Your task to perform on an android device: Add "macbook air" to the cart on newegg.com, then select checkout. Image 0: 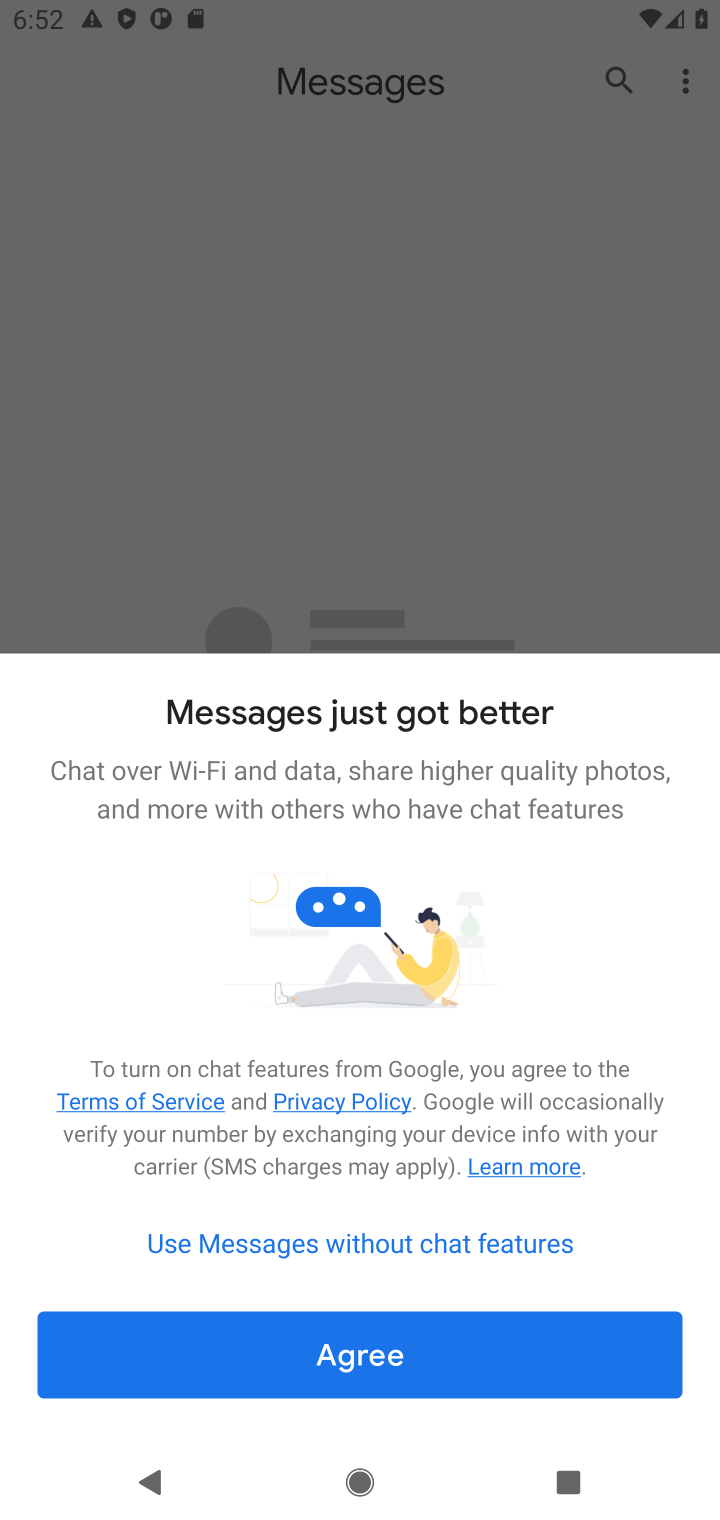
Step 0: press home button
Your task to perform on an android device: Add "macbook air" to the cart on newegg.com, then select checkout. Image 1: 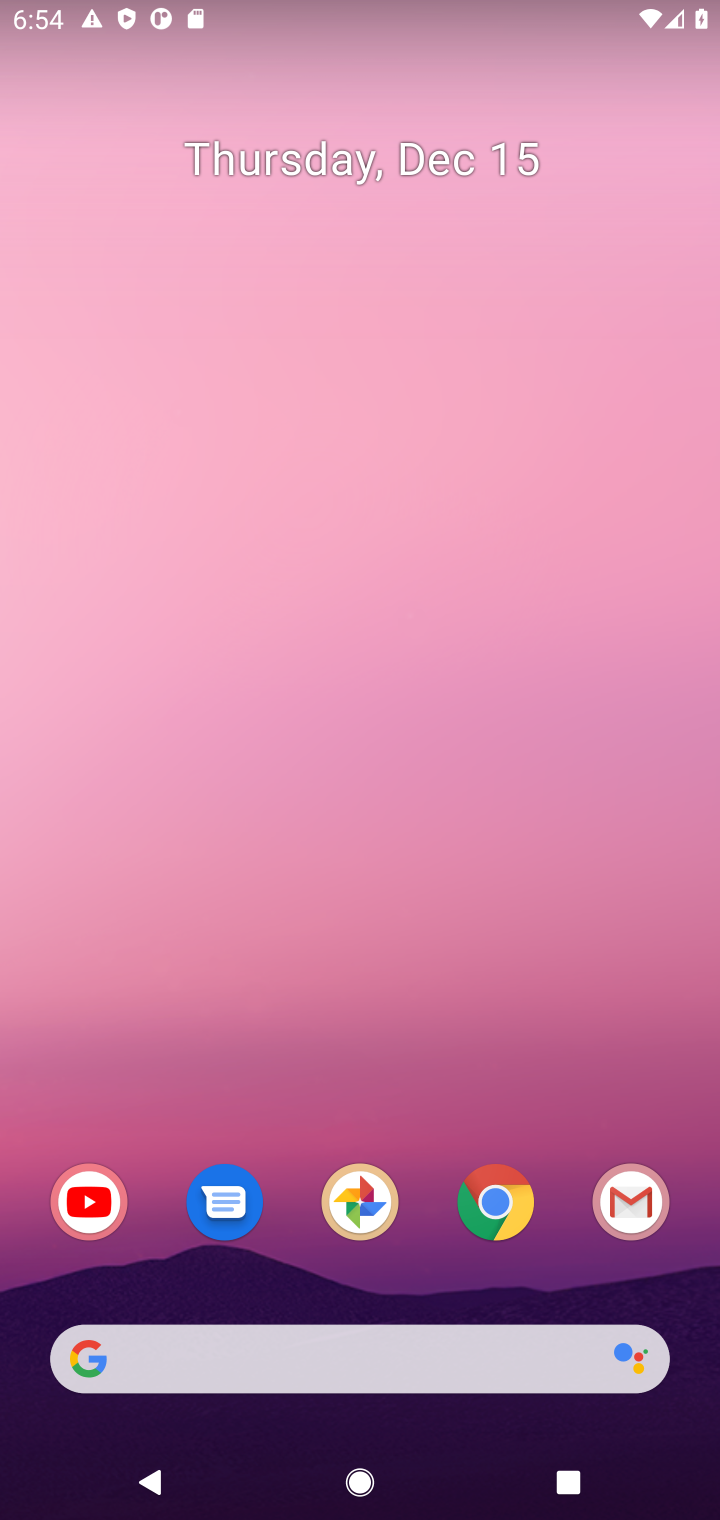
Step 1: click (488, 1205)
Your task to perform on an android device: Add "macbook air" to the cart on newegg.com, then select checkout. Image 2: 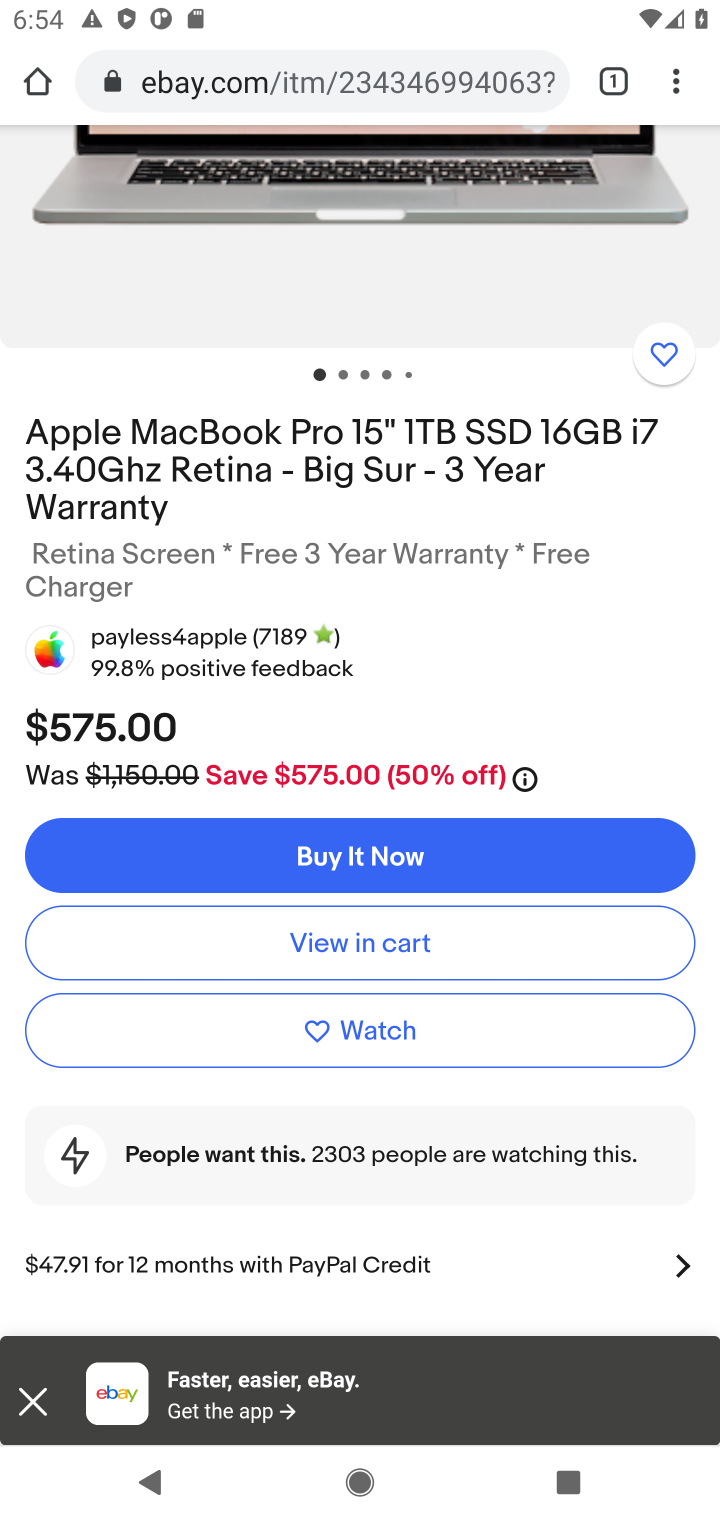
Step 2: click (286, 92)
Your task to perform on an android device: Add "macbook air" to the cart on newegg.com, then select checkout. Image 3: 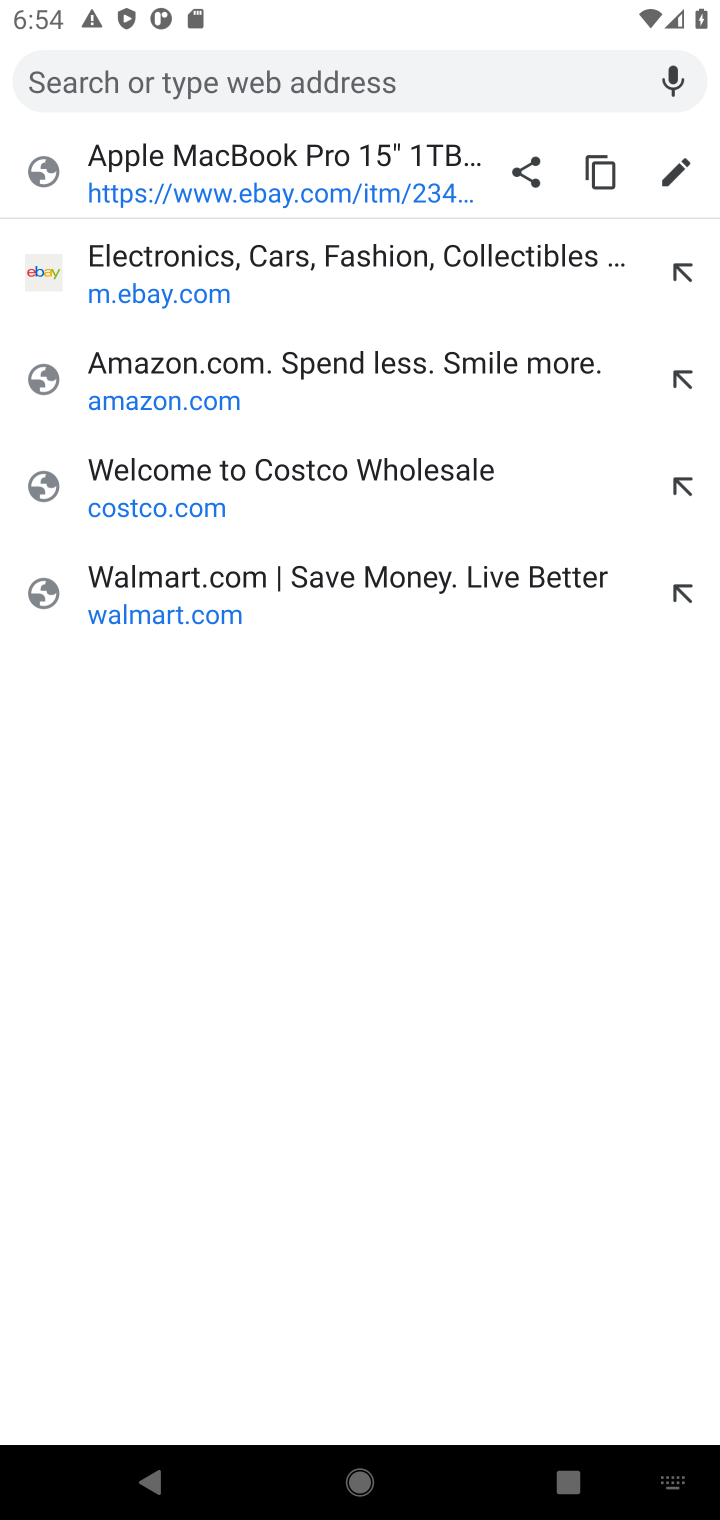
Step 3: type "newegg.com"
Your task to perform on an android device: Add "macbook air" to the cart on newegg.com, then select checkout. Image 4: 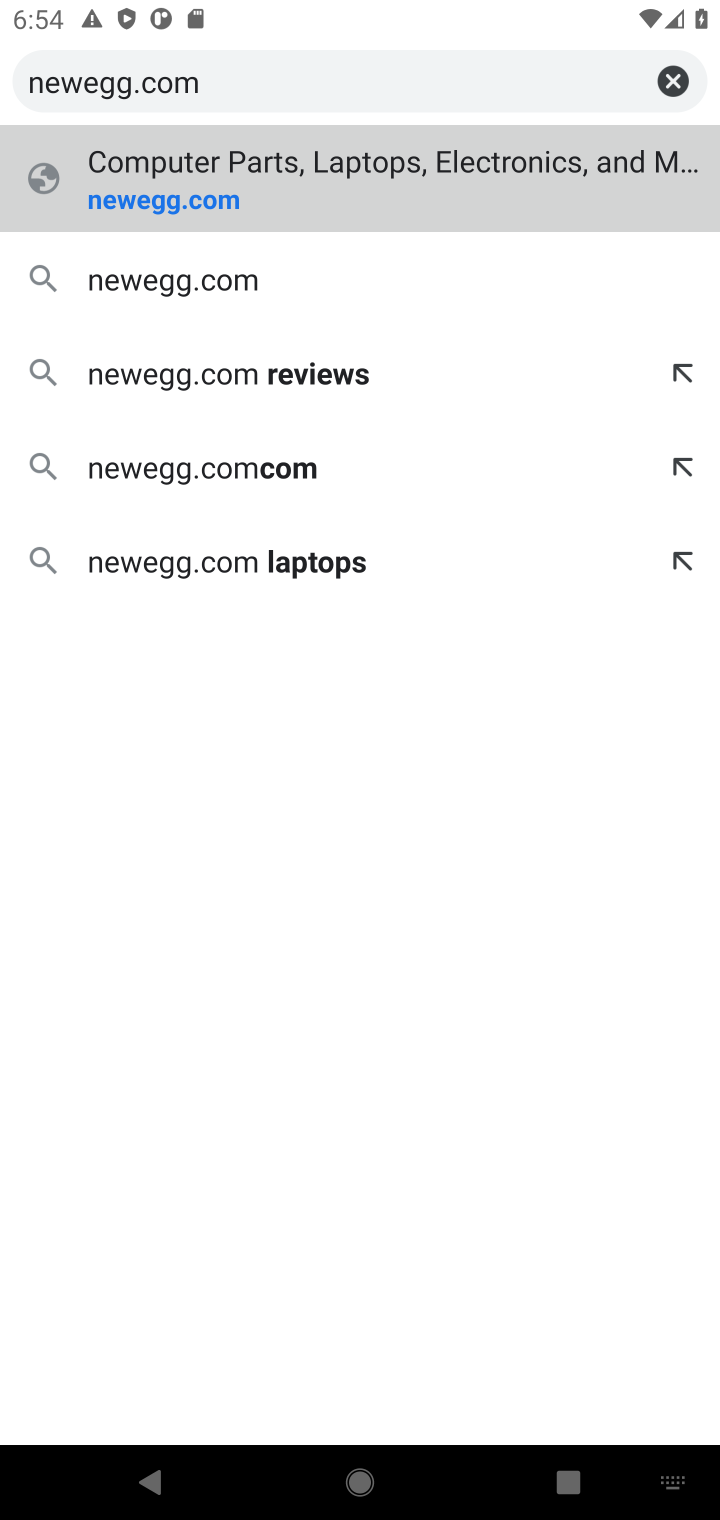
Step 4: click (178, 218)
Your task to perform on an android device: Add "macbook air" to the cart on newegg.com, then select checkout. Image 5: 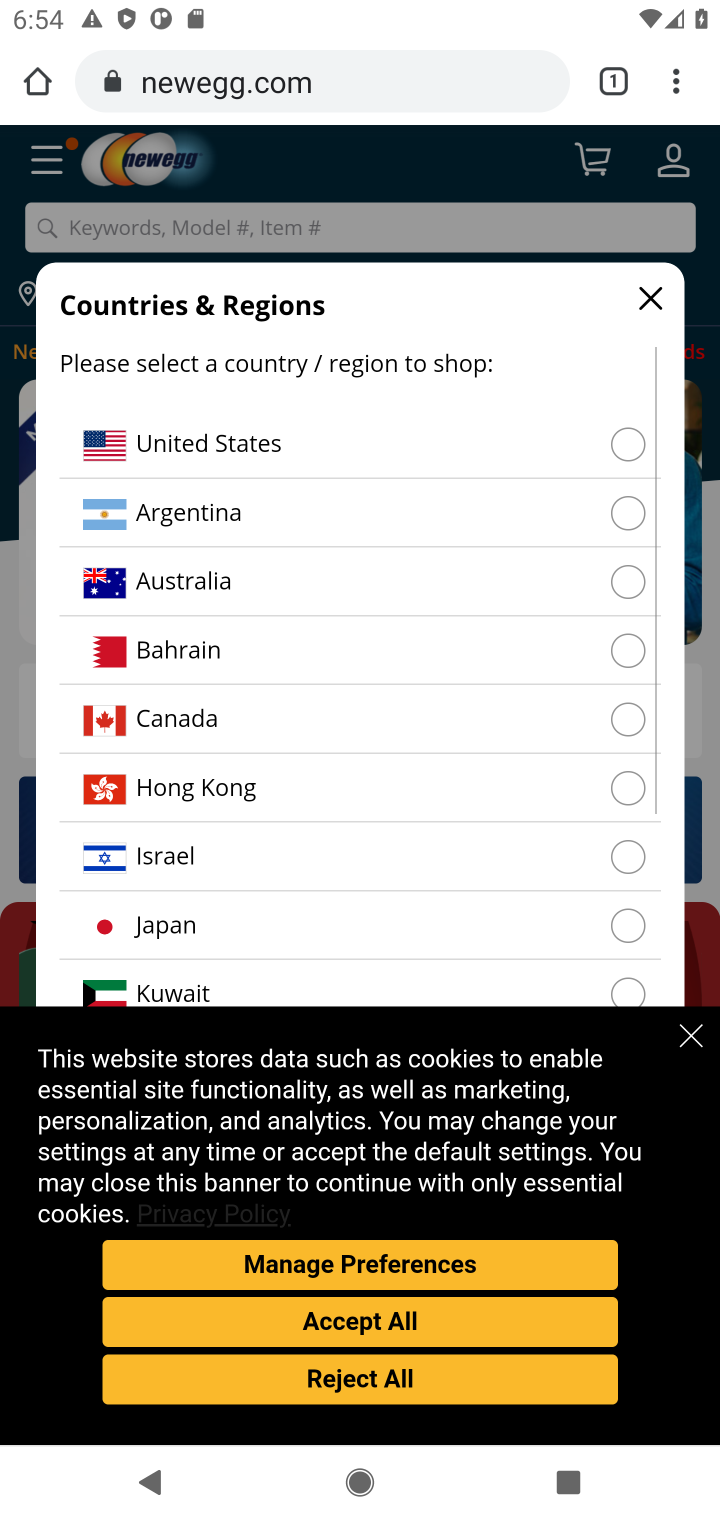
Step 5: click (690, 1040)
Your task to perform on an android device: Add "macbook air" to the cart on newegg.com, then select checkout. Image 6: 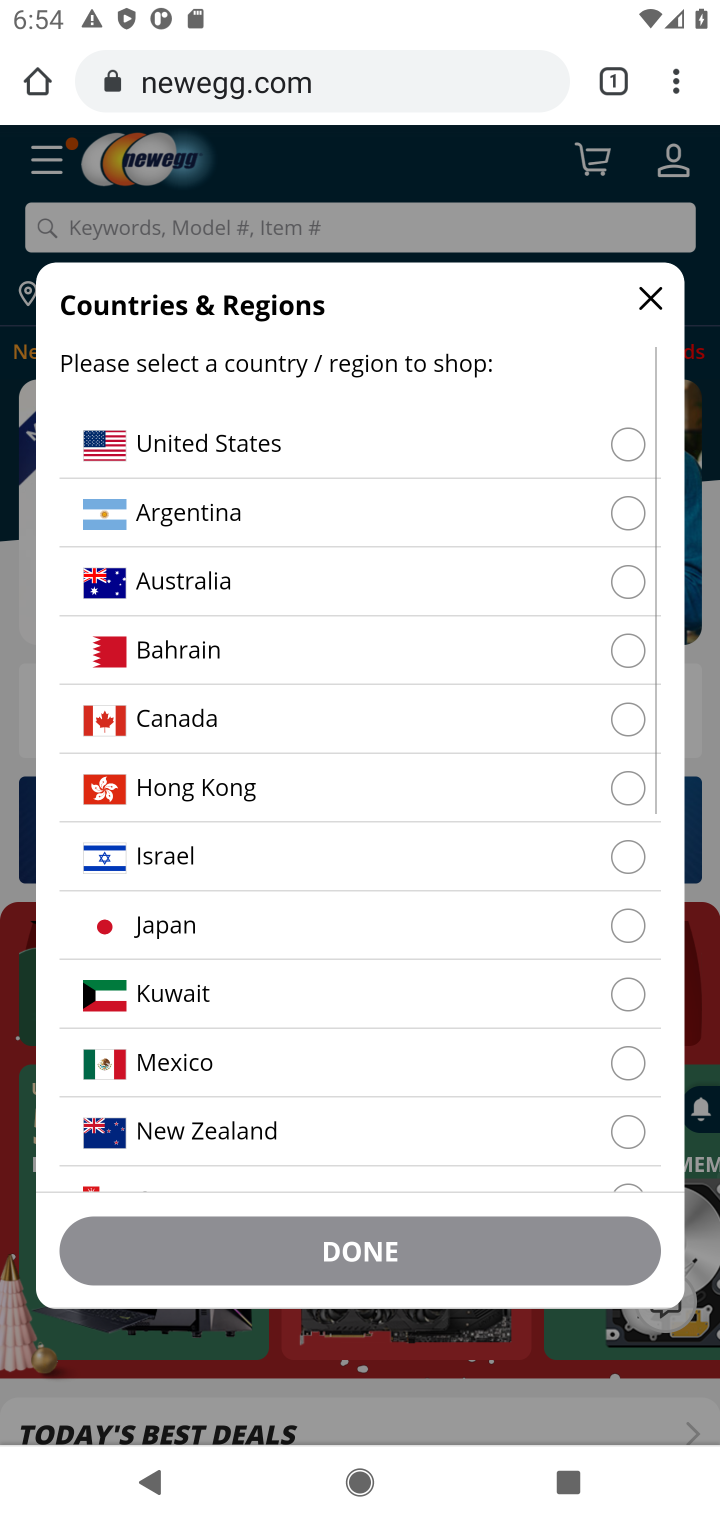
Step 6: click (112, 439)
Your task to perform on an android device: Add "macbook air" to the cart on newegg.com, then select checkout. Image 7: 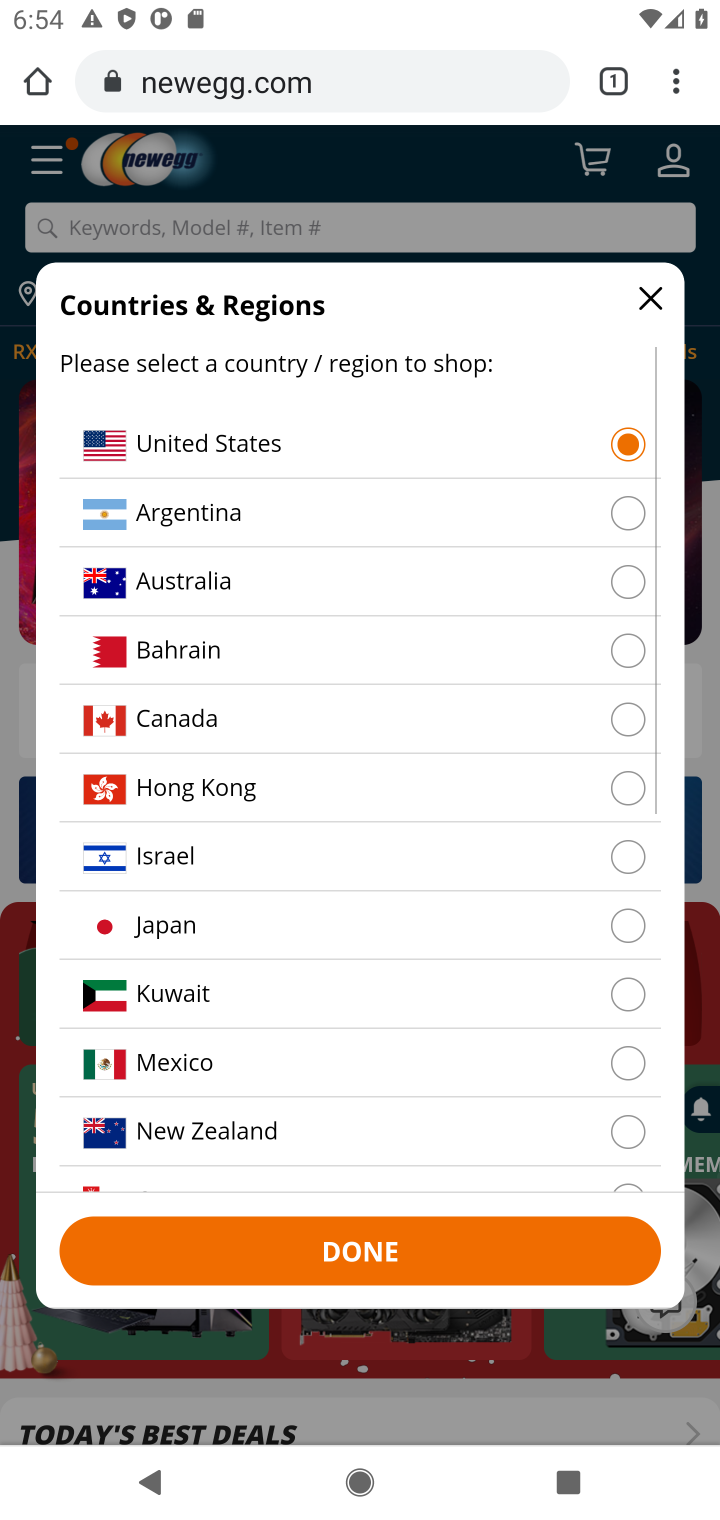
Step 7: click (303, 1254)
Your task to perform on an android device: Add "macbook air" to the cart on newegg.com, then select checkout. Image 8: 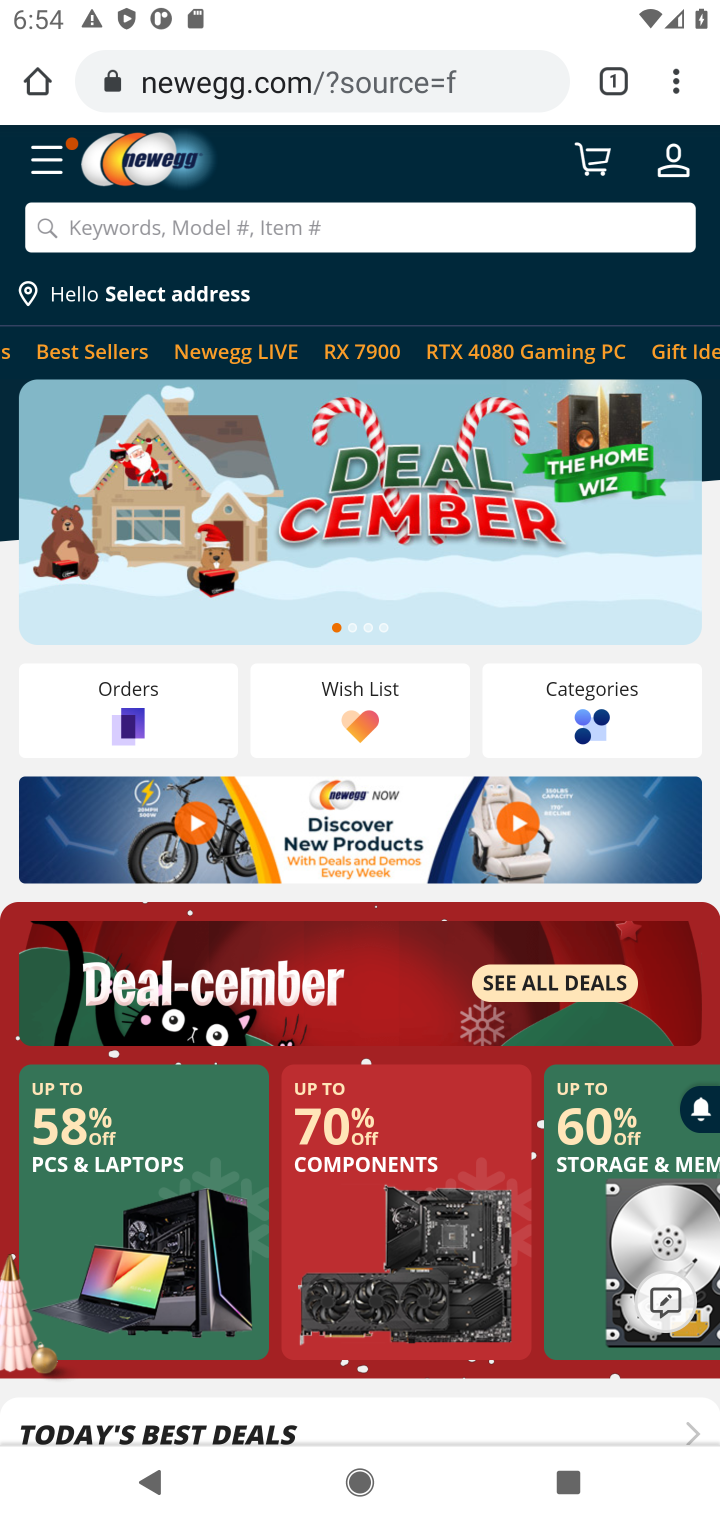
Step 8: click (151, 234)
Your task to perform on an android device: Add "macbook air" to the cart on newegg.com, then select checkout. Image 9: 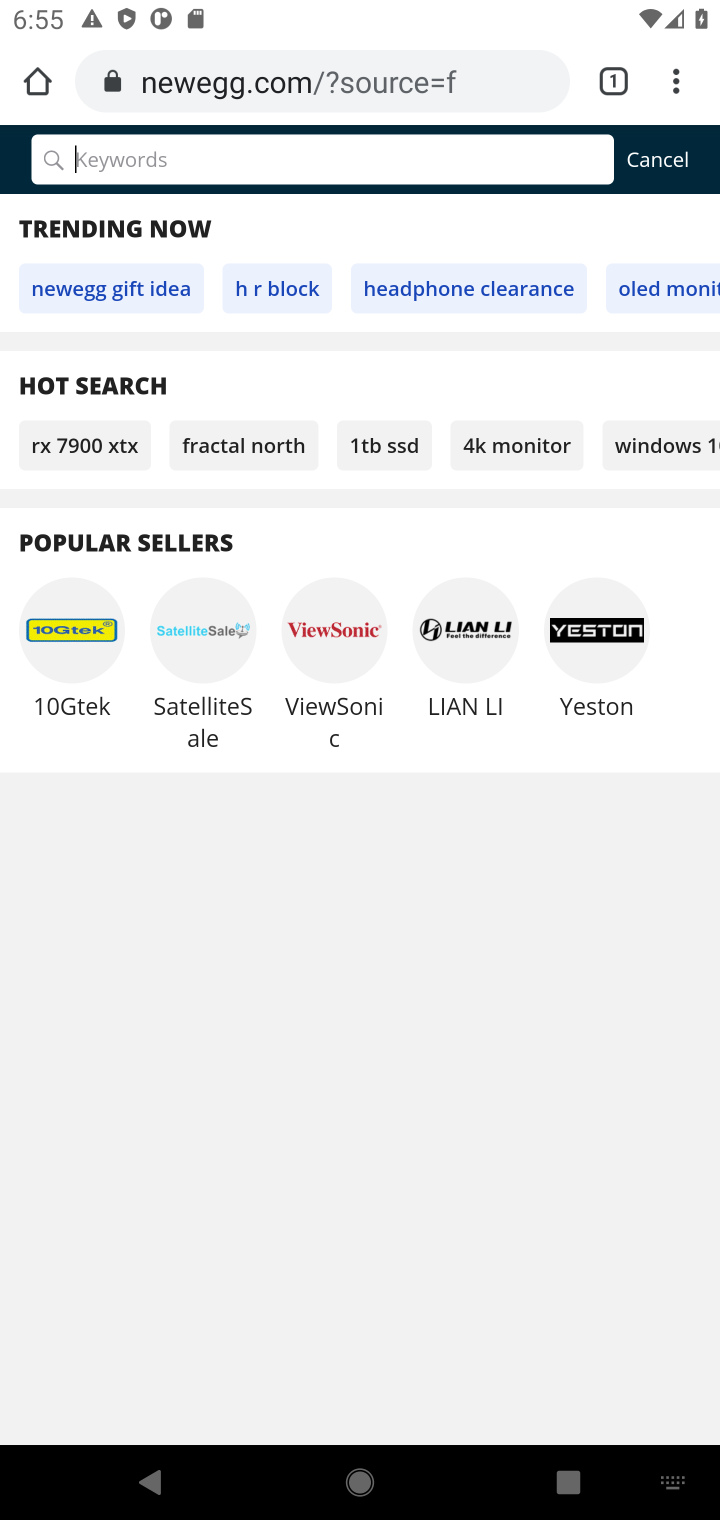
Step 9: type "macbook air"
Your task to perform on an android device: Add "macbook air" to the cart on newegg.com, then select checkout. Image 10: 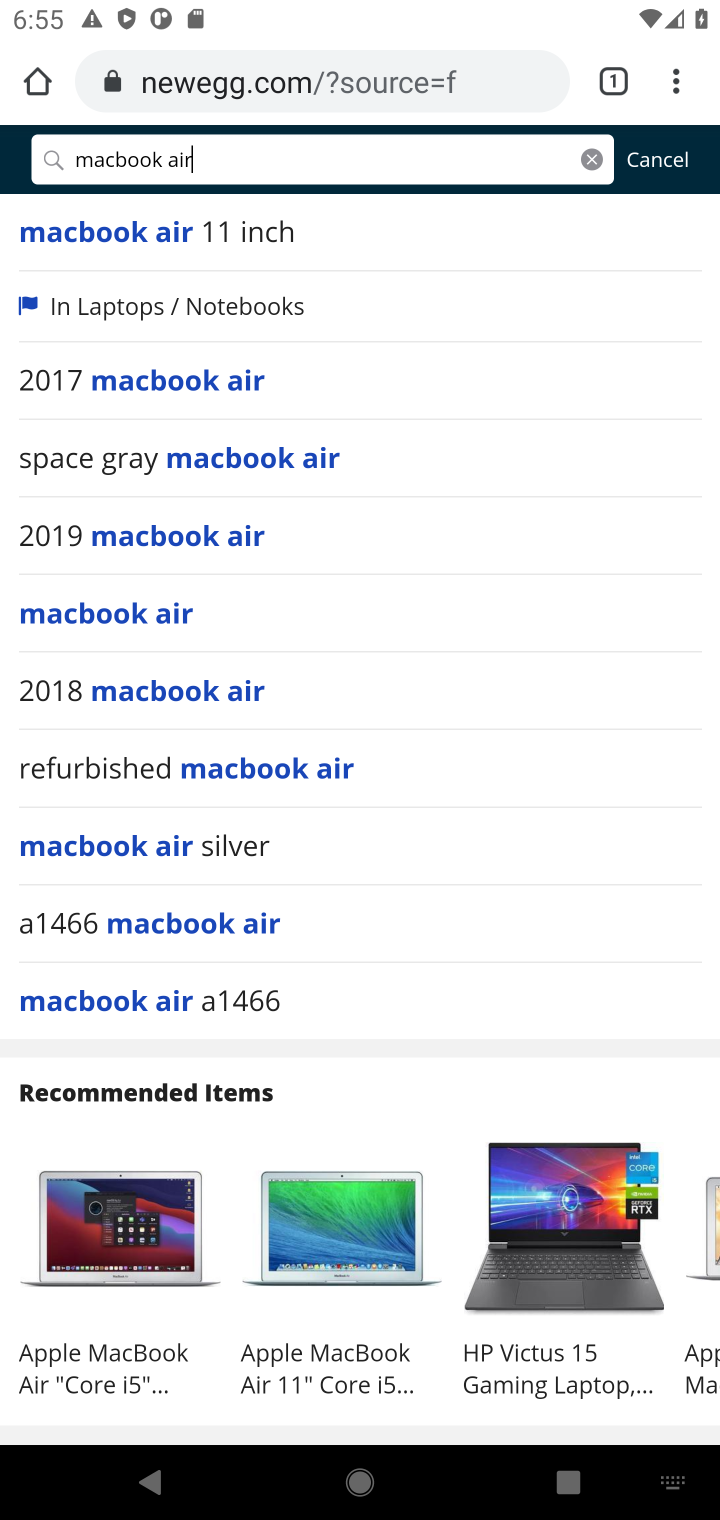
Step 10: click (160, 620)
Your task to perform on an android device: Add "macbook air" to the cart on newegg.com, then select checkout. Image 11: 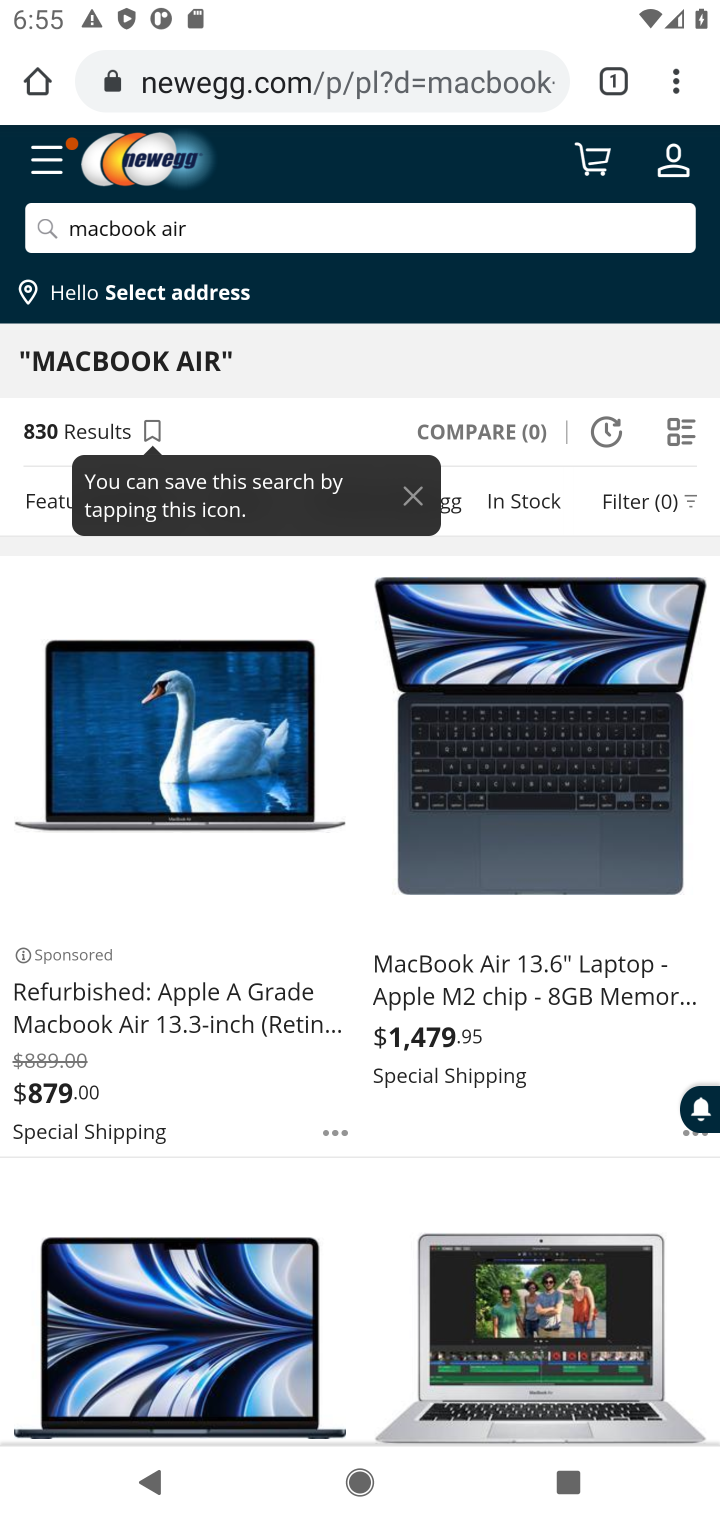
Step 11: click (156, 1006)
Your task to perform on an android device: Add "macbook air" to the cart on newegg.com, then select checkout. Image 12: 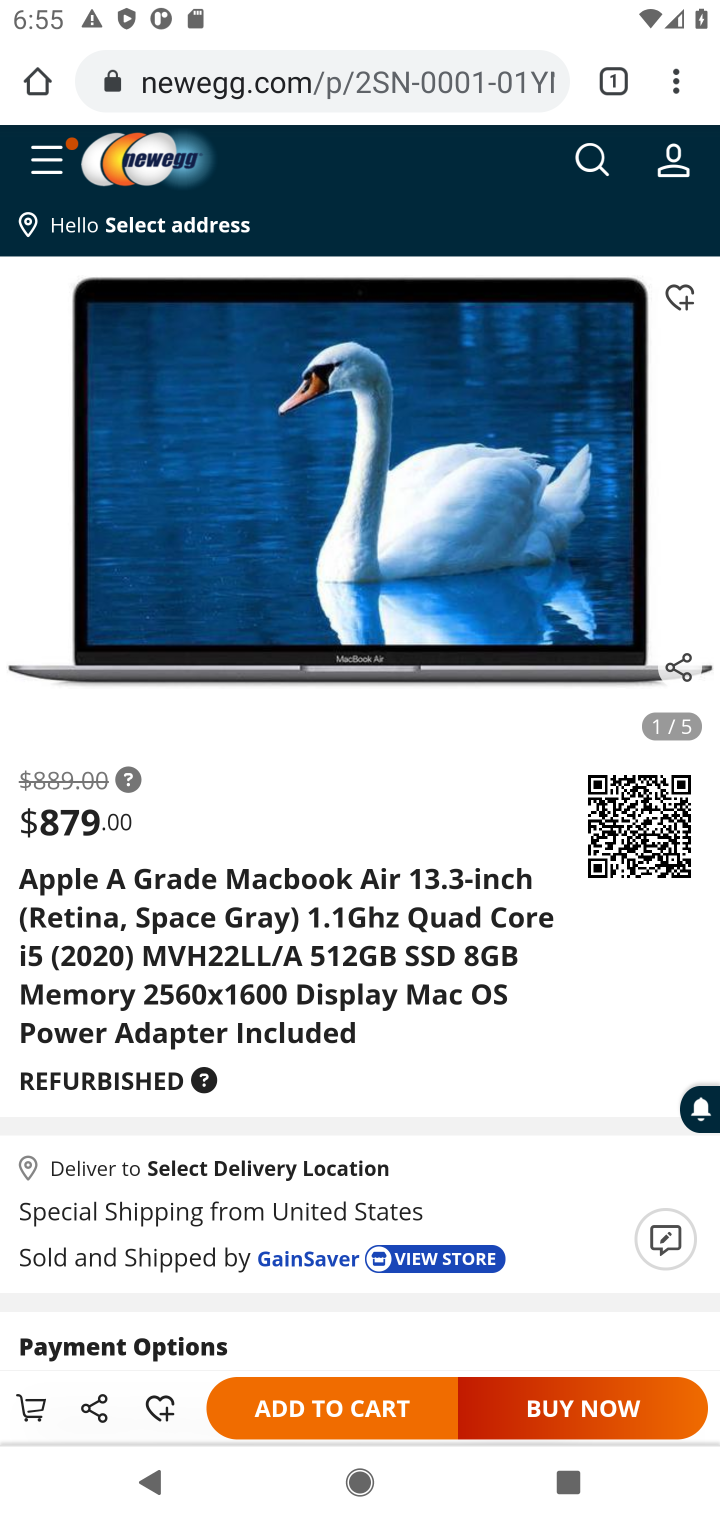
Step 12: click (311, 1419)
Your task to perform on an android device: Add "macbook air" to the cart on newegg.com, then select checkout. Image 13: 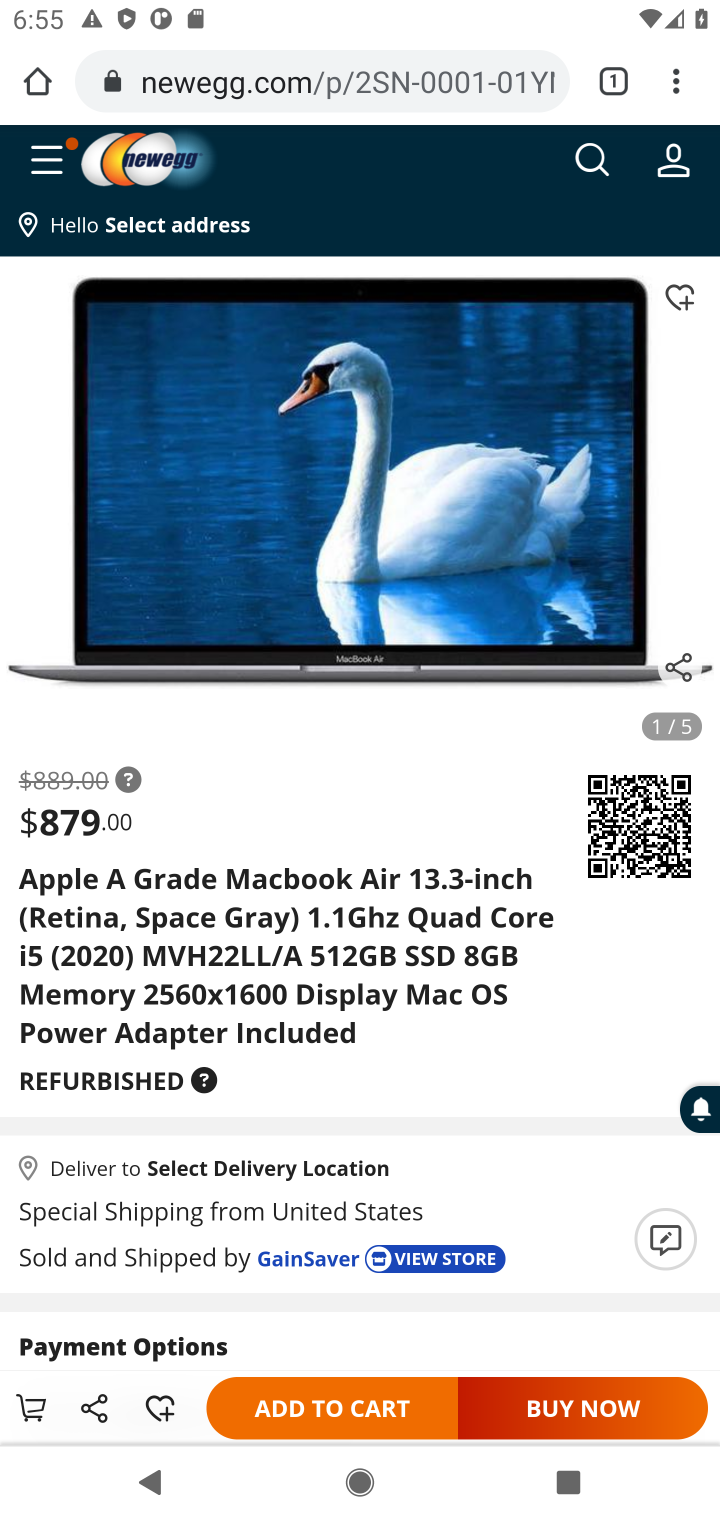
Step 13: click (322, 1407)
Your task to perform on an android device: Add "macbook air" to the cart on newegg.com, then select checkout. Image 14: 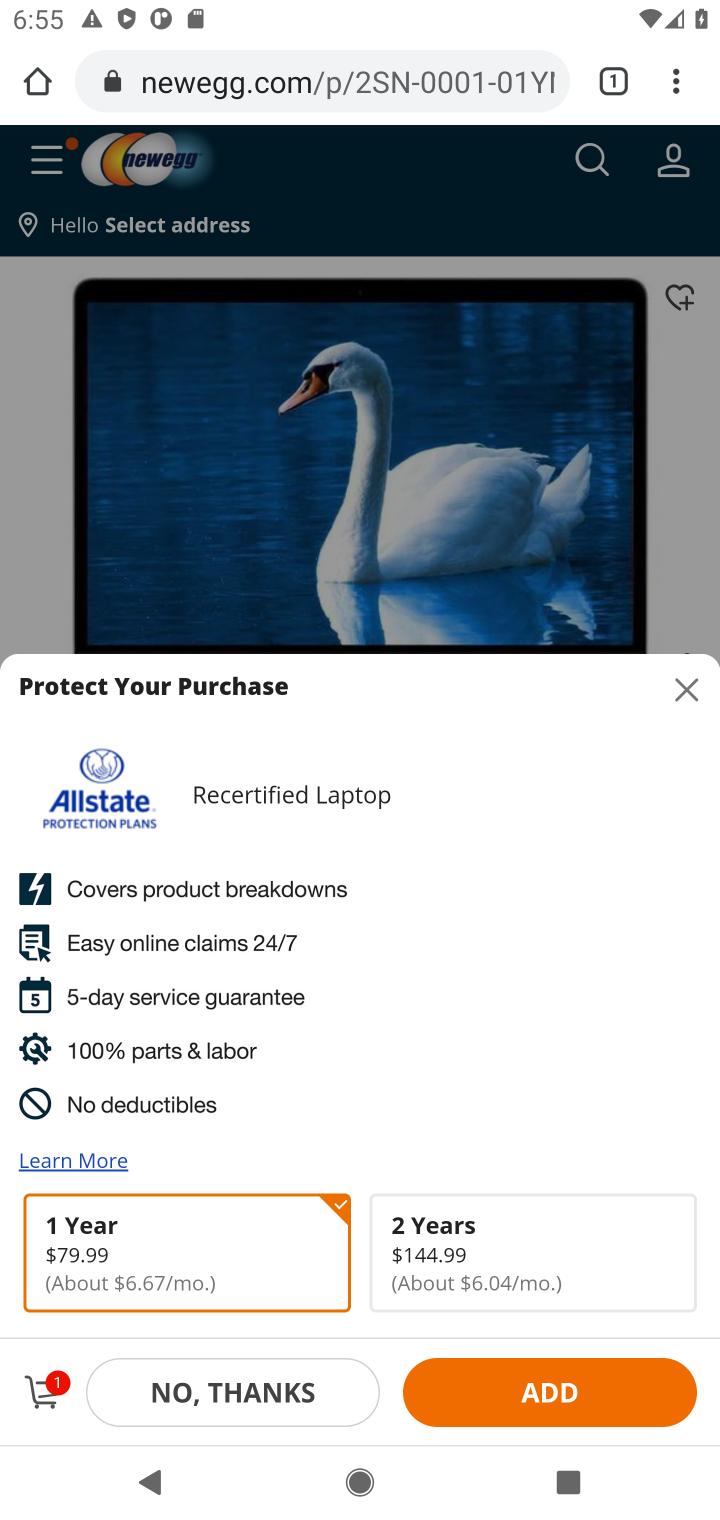
Step 14: click (47, 1388)
Your task to perform on an android device: Add "macbook air" to the cart on newegg.com, then select checkout. Image 15: 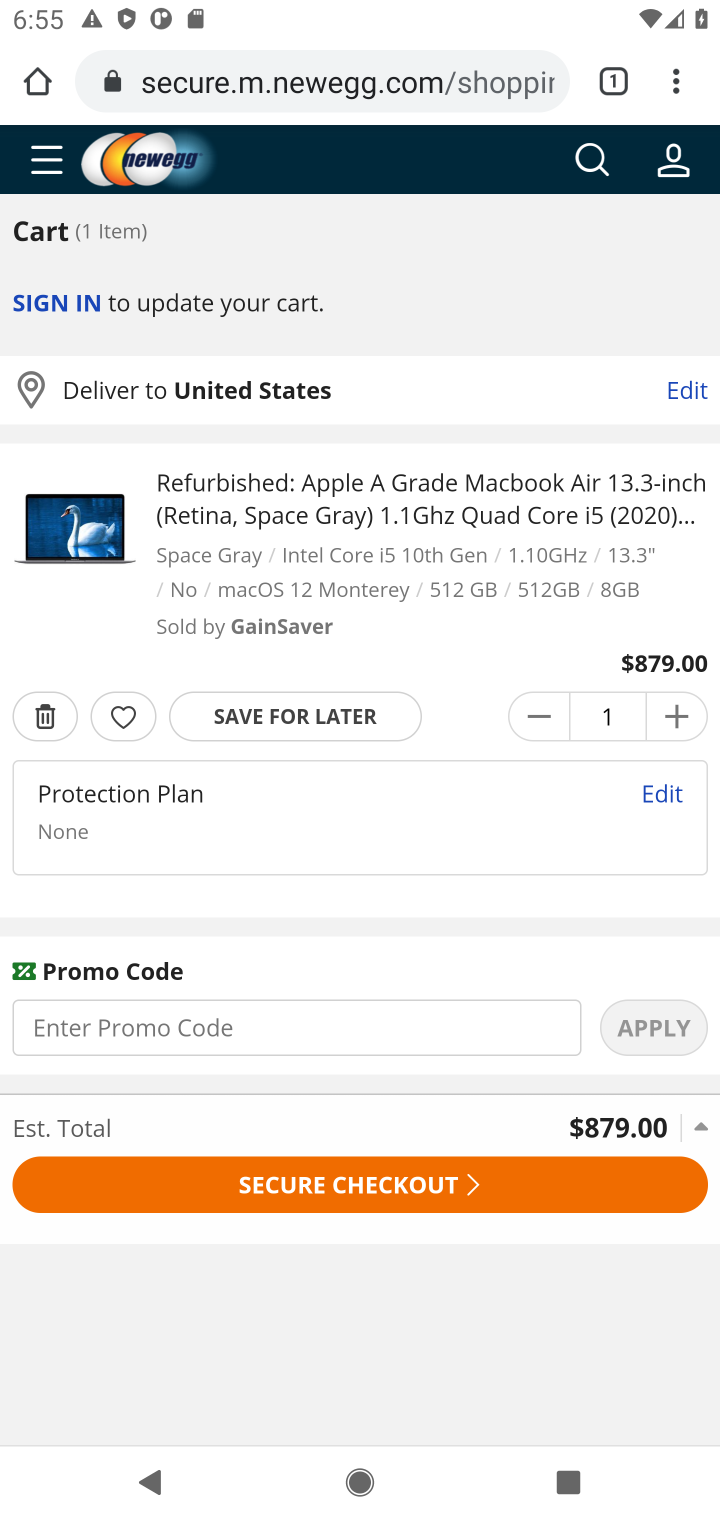
Step 15: click (259, 1191)
Your task to perform on an android device: Add "macbook air" to the cart on newegg.com, then select checkout. Image 16: 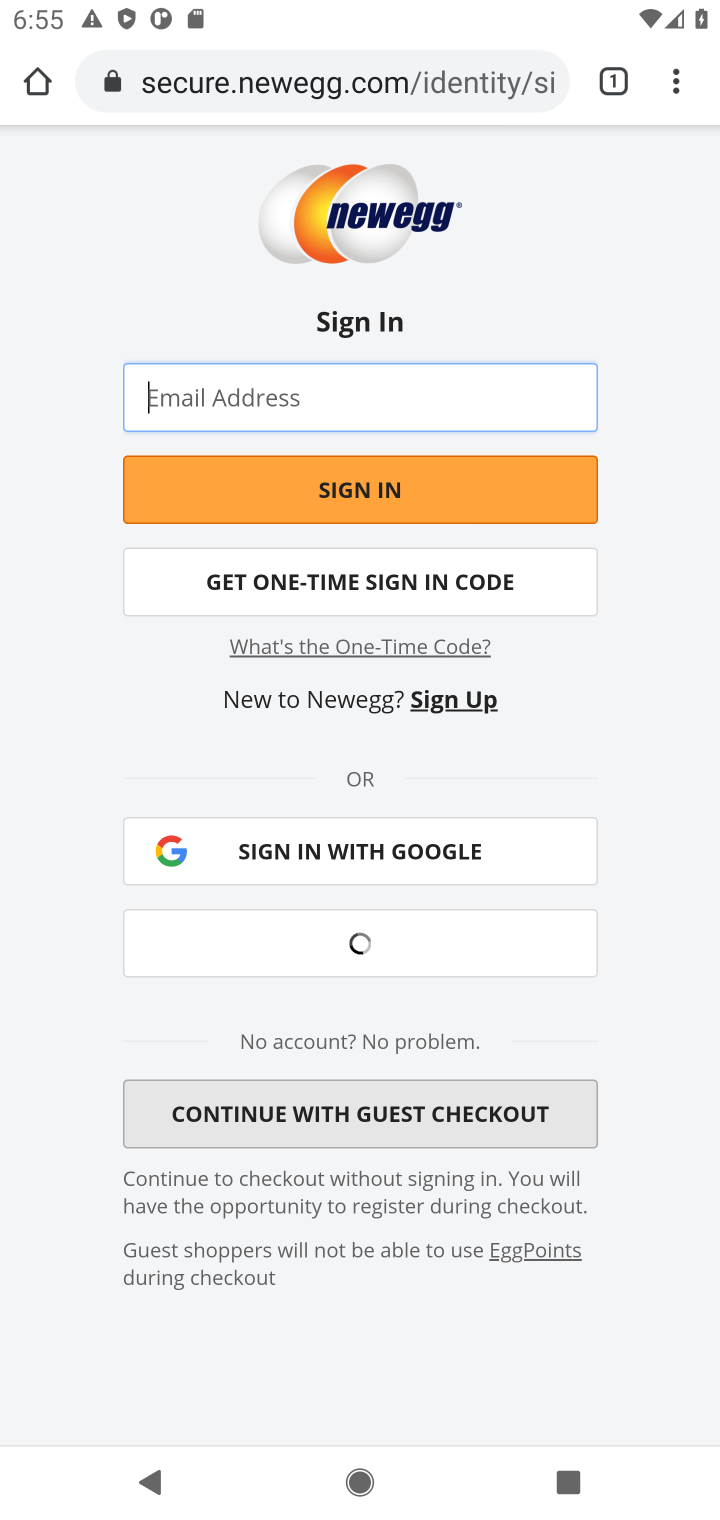
Step 16: task complete